Your task to perform on an android device: What's the weather? Image 0: 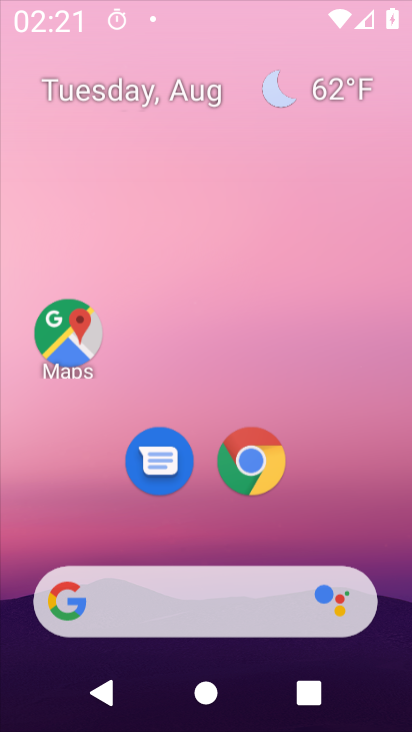
Step 0: press home button
Your task to perform on an android device: What's the weather? Image 1: 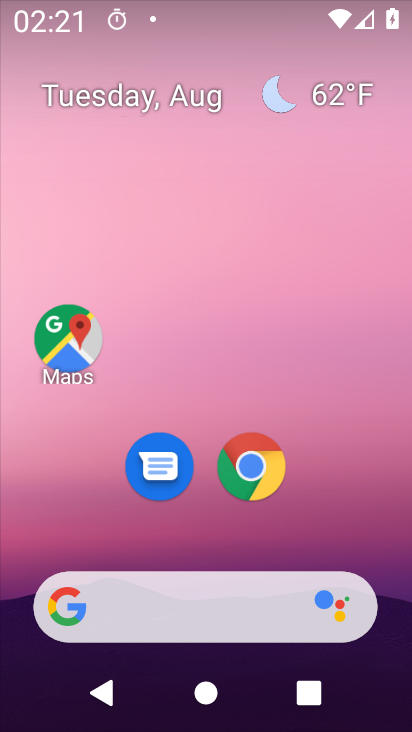
Step 1: drag from (246, 3) to (245, 346)
Your task to perform on an android device: What's the weather? Image 2: 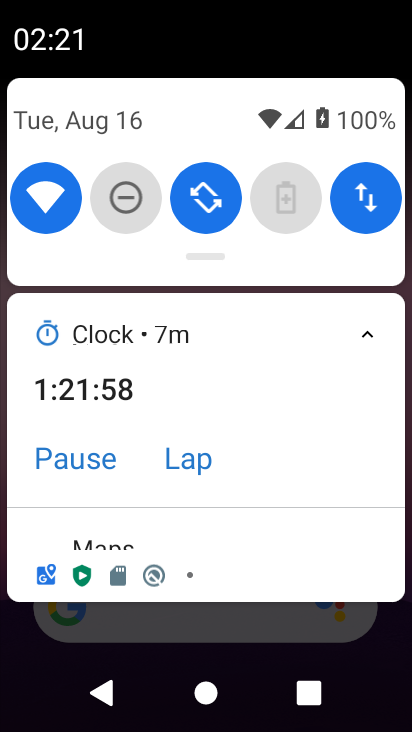
Step 2: drag from (234, 103) to (228, 414)
Your task to perform on an android device: What's the weather? Image 3: 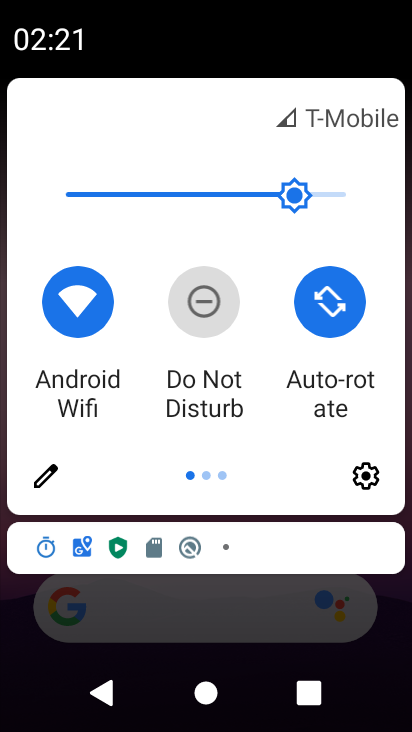
Step 3: click (51, 474)
Your task to perform on an android device: What's the weather? Image 4: 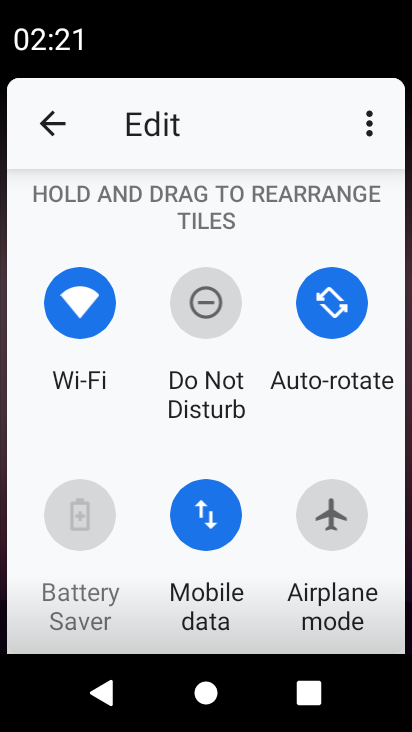
Step 4: task complete